Your task to perform on an android device: Open display settings Image 0: 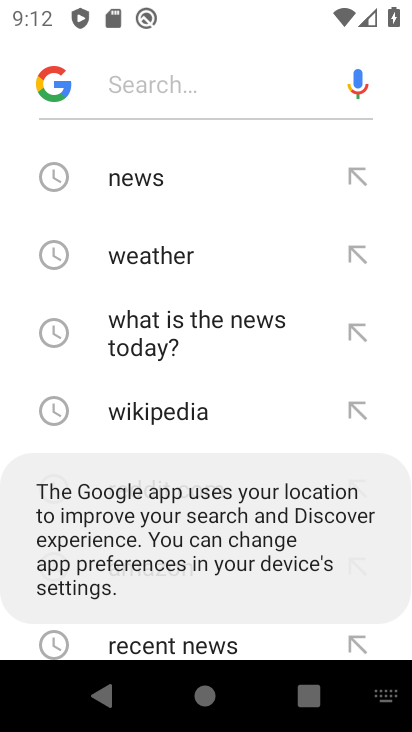
Step 0: press back button
Your task to perform on an android device: Open display settings Image 1: 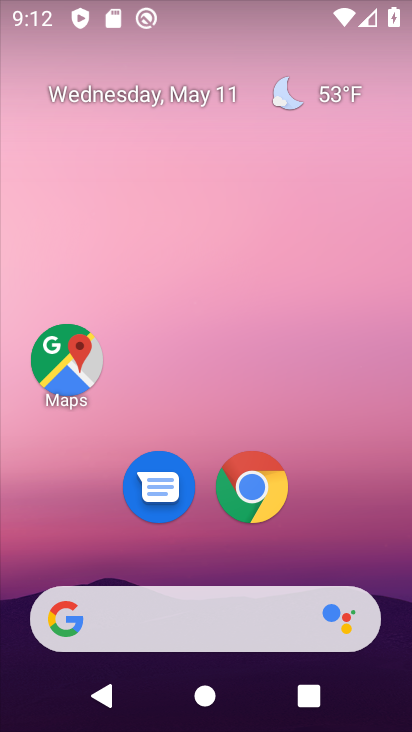
Step 1: drag from (355, 475) to (287, 37)
Your task to perform on an android device: Open display settings Image 2: 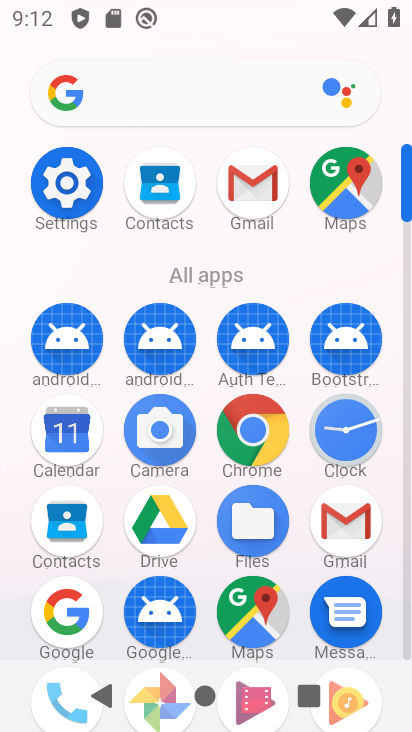
Step 2: click (65, 182)
Your task to perform on an android device: Open display settings Image 3: 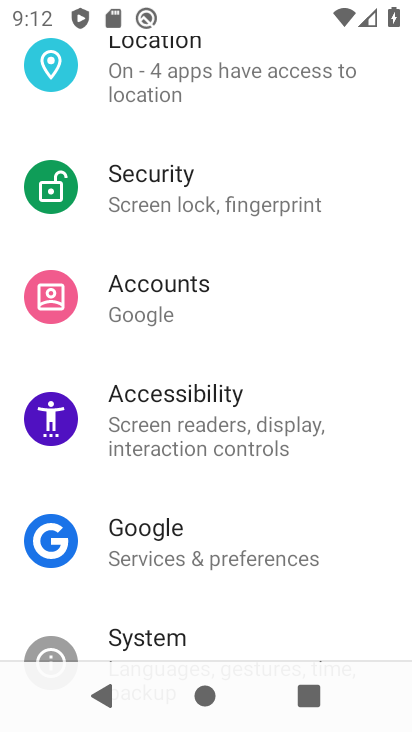
Step 3: drag from (237, 265) to (203, 358)
Your task to perform on an android device: Open display settings Image 4: 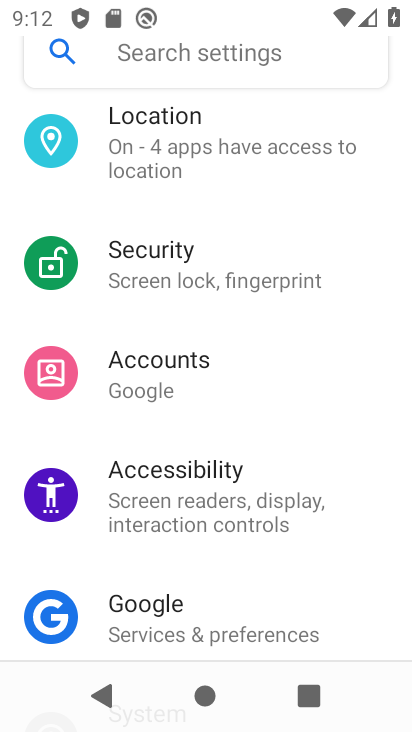
Step 4: drag from (235, 198) to (234, 348)
Your task to perform on an android device: Open display settings Image 5: 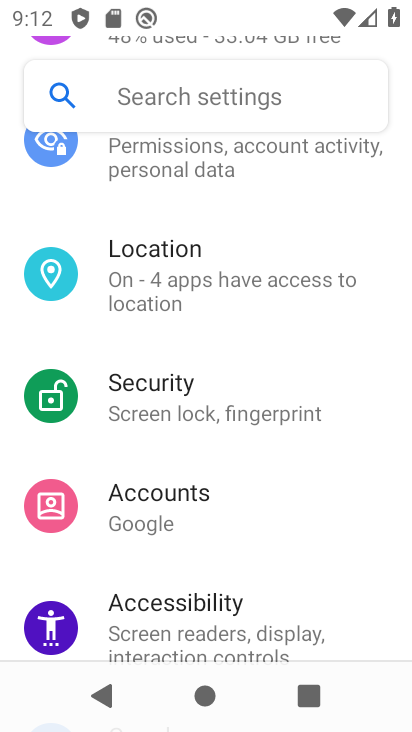
Step 5: drag from (223, 213) to (236, 369)
Your task to perform on an android device: Open display settings Image 6: 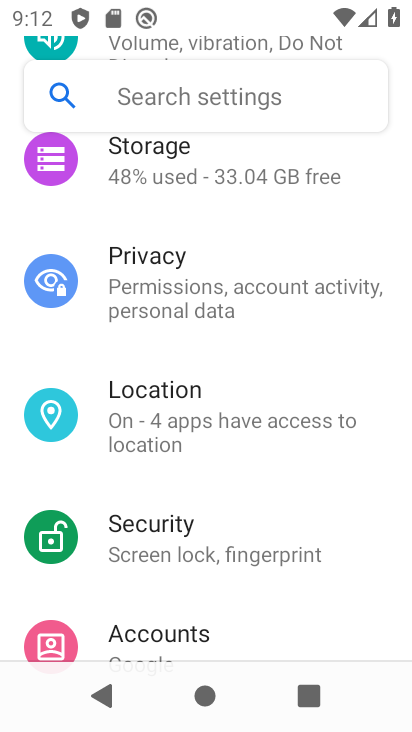
Step 6: drag from (207, 218) to (219, 363)
Your task to perform on an android device: Open display settings Image 7: 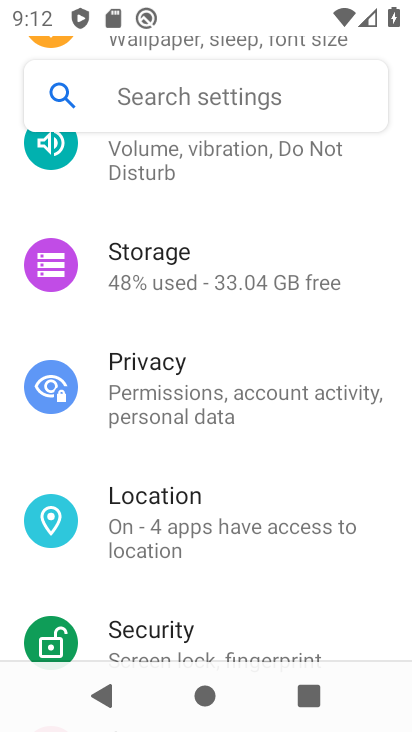
Step 7: drag from (215, 214) to (223, 363)
Your task to perform on an android device: Open display settings Image 8: 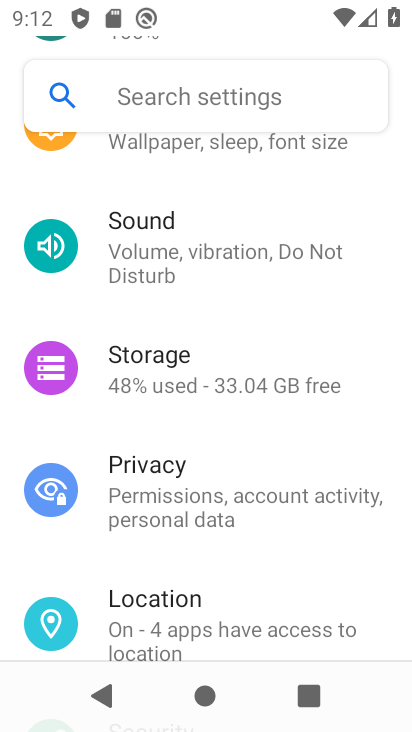
Step 8: drag from (238, 192) to (236, 365)
Your task to perform on an android device: Open display settings Image 9: 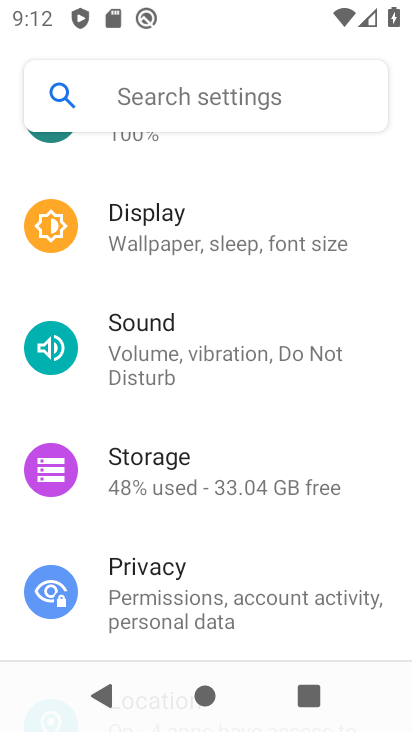
Step 9: click (158, 211)
Your task to perform on an android device: Open display settings Image 10: 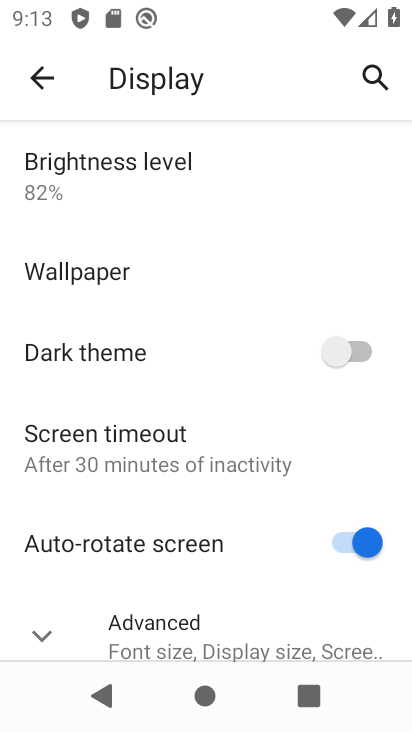
Step 10: task complete